Your task to perform on an android device: Go to accessibility settings Image 0: 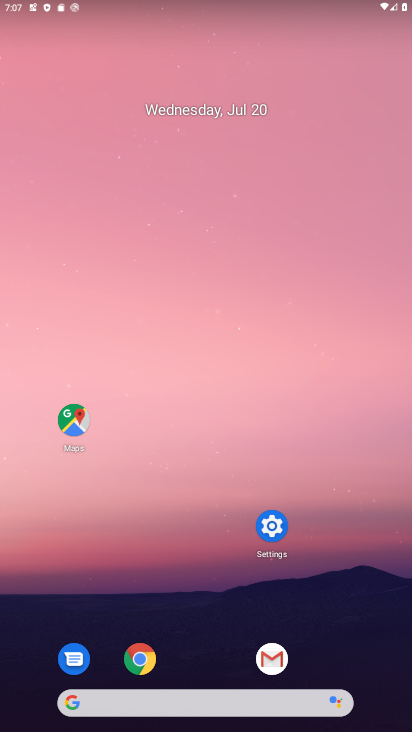
Step 0: click (269, 532)
Your task to perform on an android device: Go to accessibility settings Image 1: 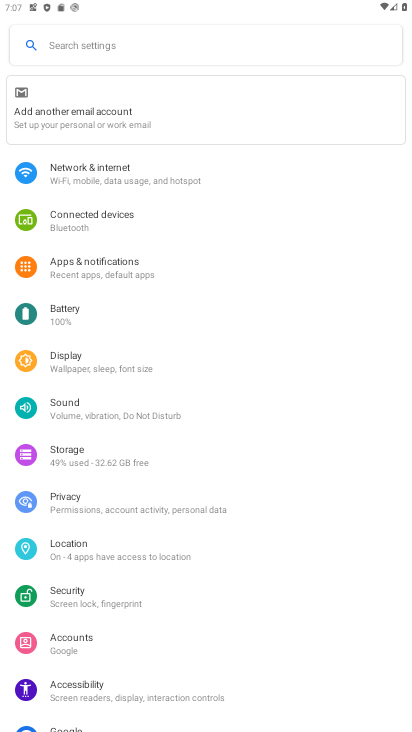
Step 1: click (77, 38)
Your task to perform on an android device: Go to accessibility settings Image 2: 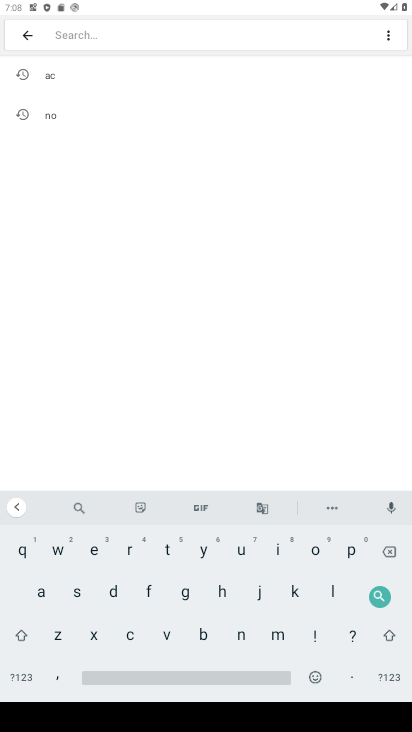
Step 2: click (39, 595)
Your task to perform on an android device: Go to accessibility settings Image 3: 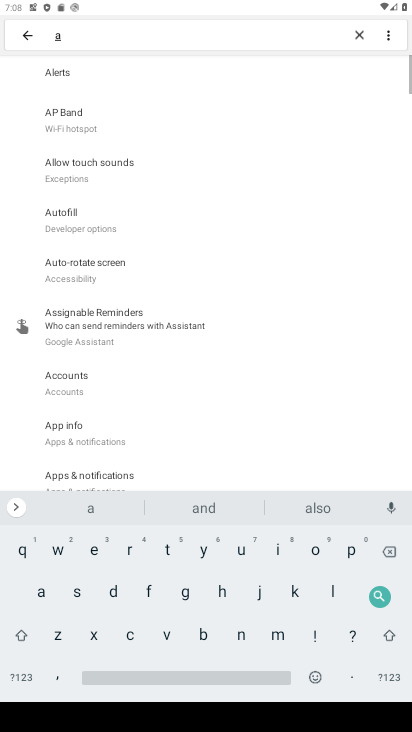
Step 3: click (126, 631)
Your task to perform on an android device: Go to accessibility settings Image 4: 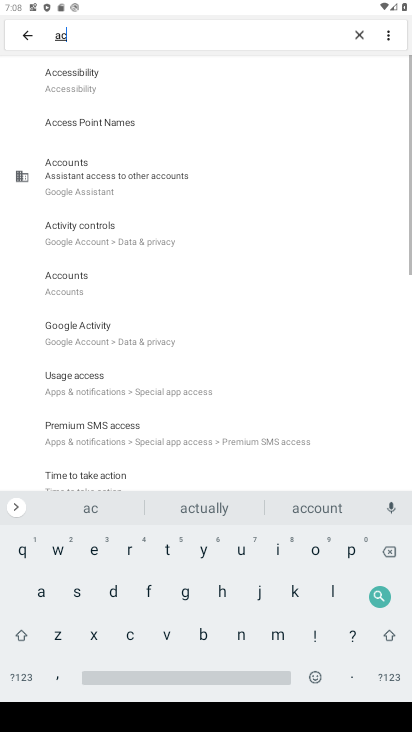
Step 4: click (105, 82)
Your task to perform on an android device: Go to accessibility settings Image 5: 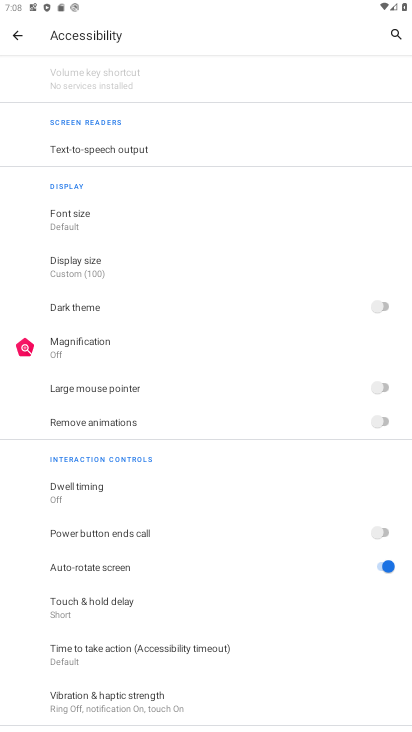
Step 5: task complete